Your task to perform on an android device: Open sound settings Image 0: 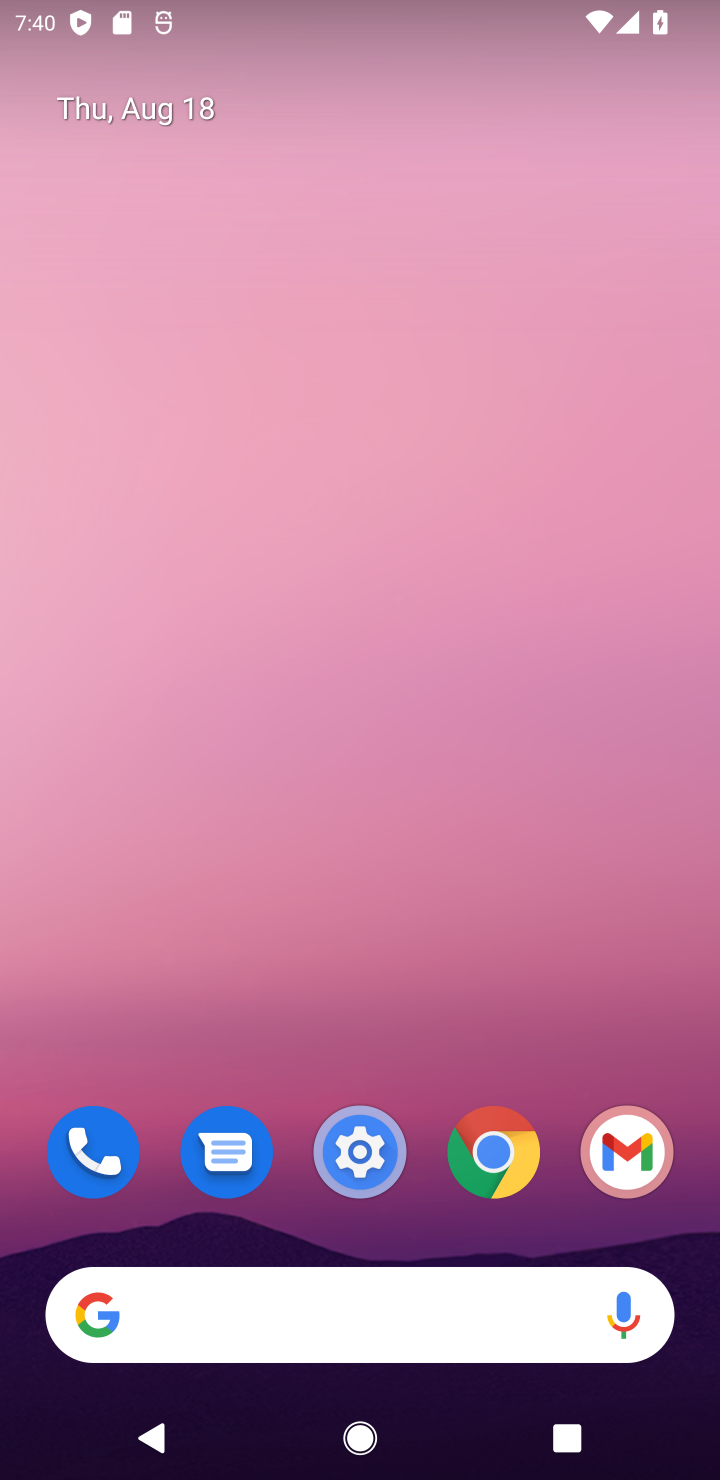
Step 0: click (372, 1169)
Your task to perform on an android device: Open sound settings Image 1: 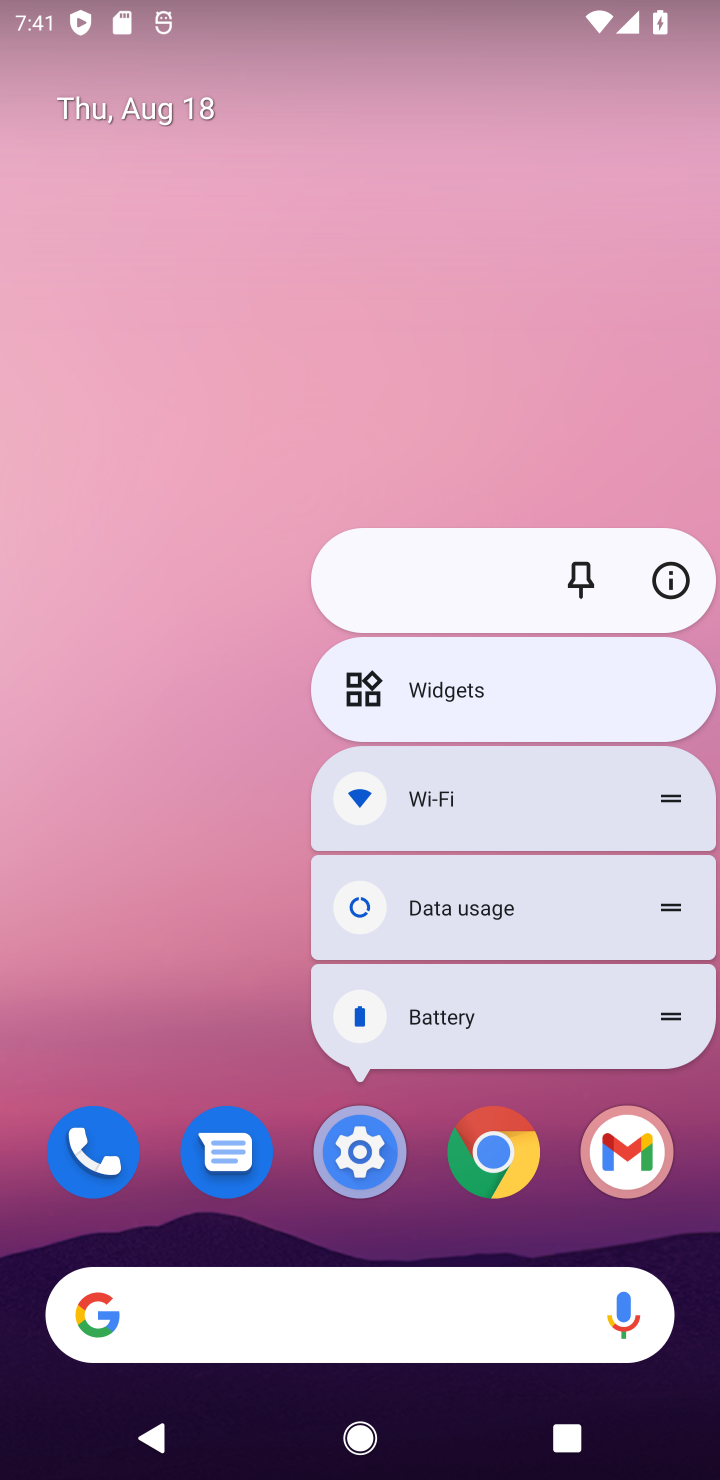
Step 1: click (348, 1173)
Your task to perform on an android device: Open sound settings Image 2: 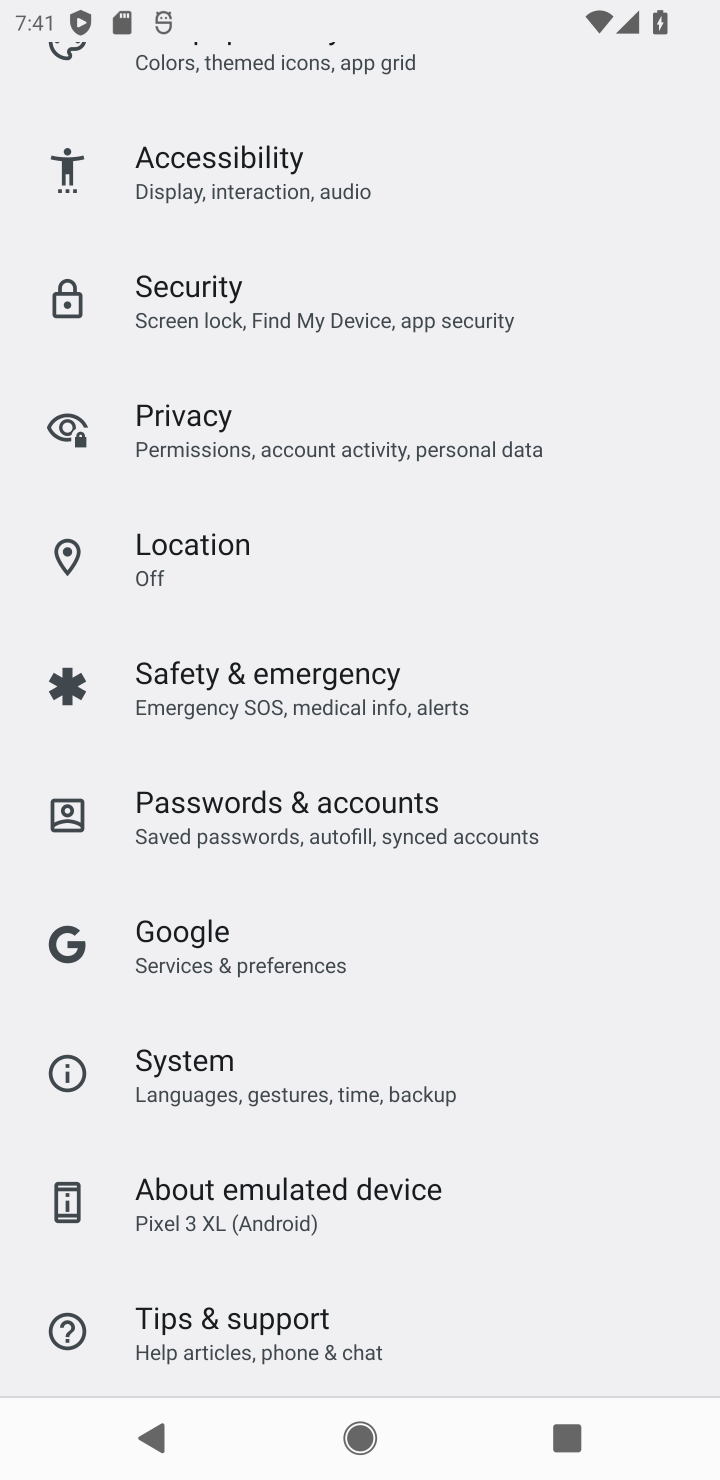
Step 2: drag from (576, 302) to (411, 1169)
Your task to perform on an android device: Open sound settings Image 3: 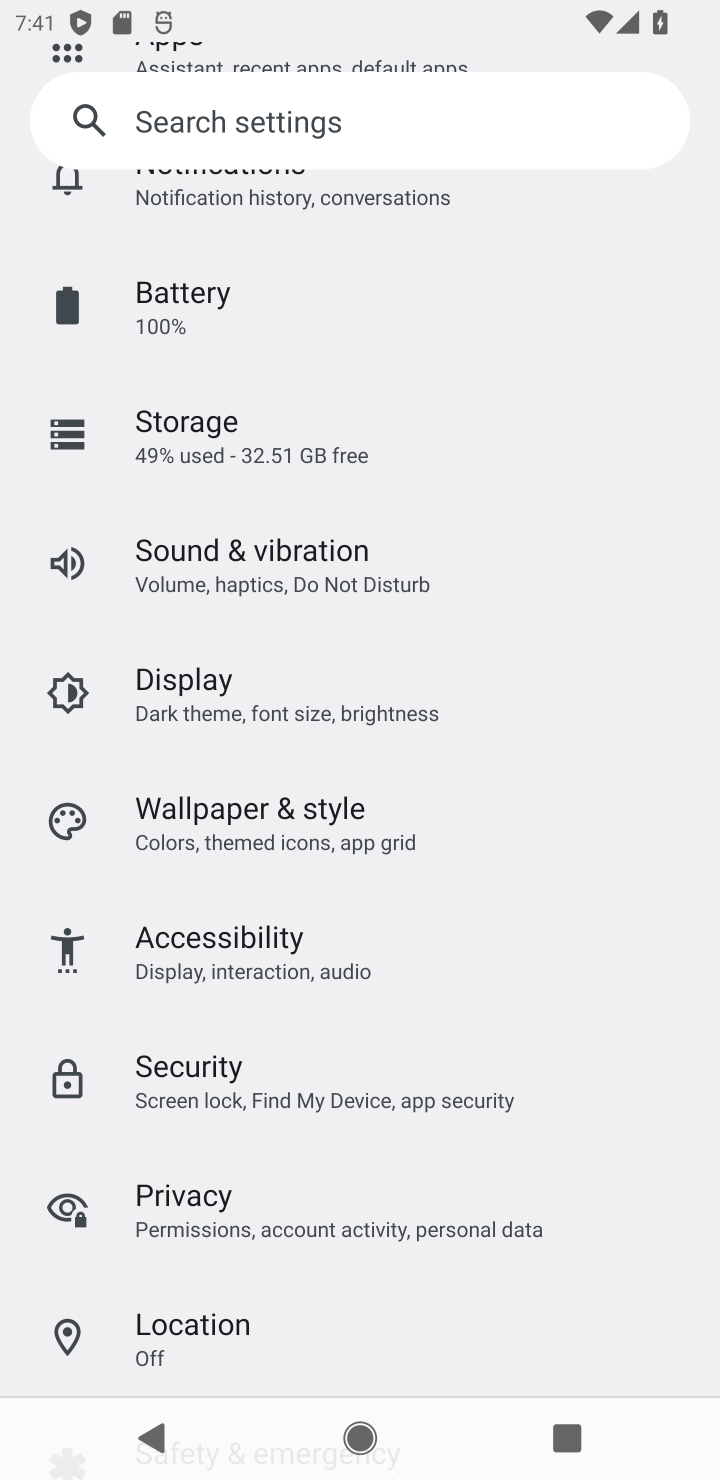
Step 3: click (197, 558)
Your task to perform on an android device: Open sound settings Image 4: 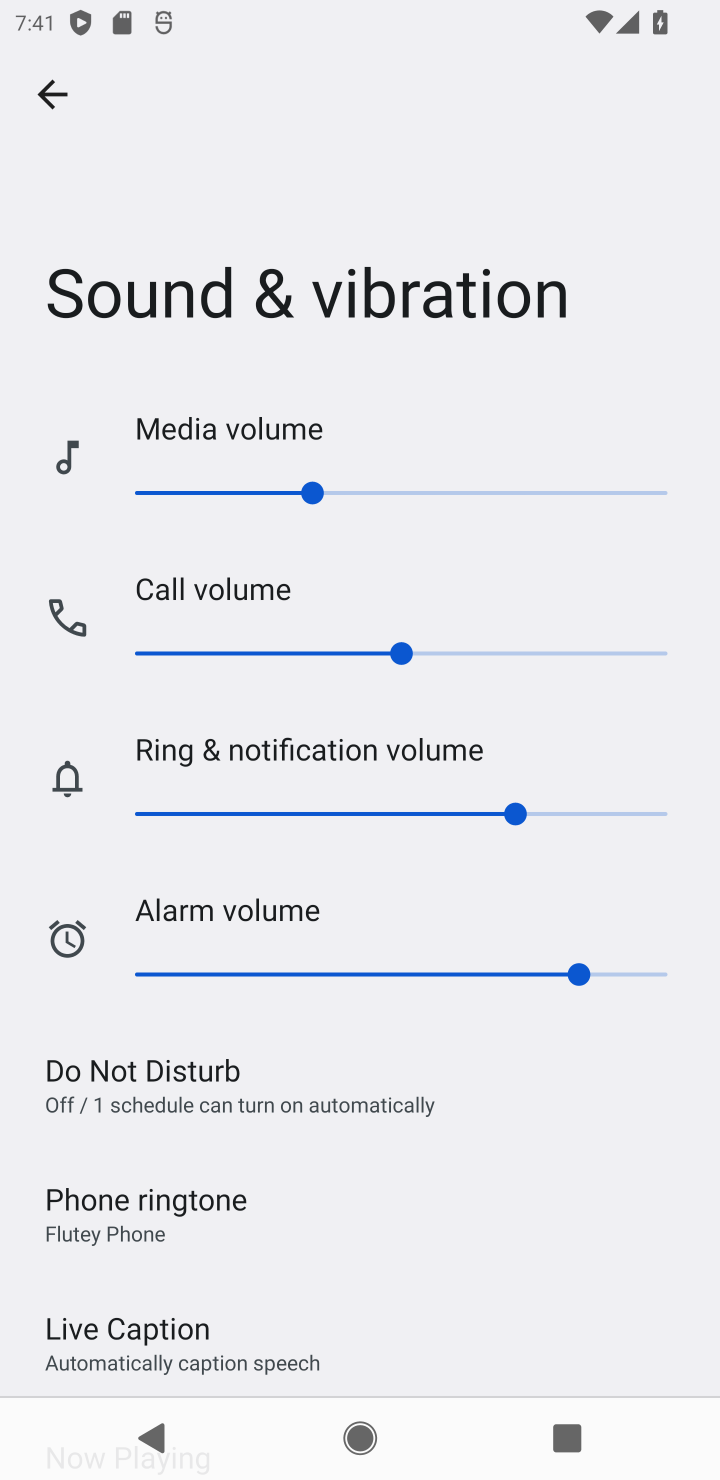
Step 4: task complete